Your task to perform on an android device: What's the weather? Image 0: 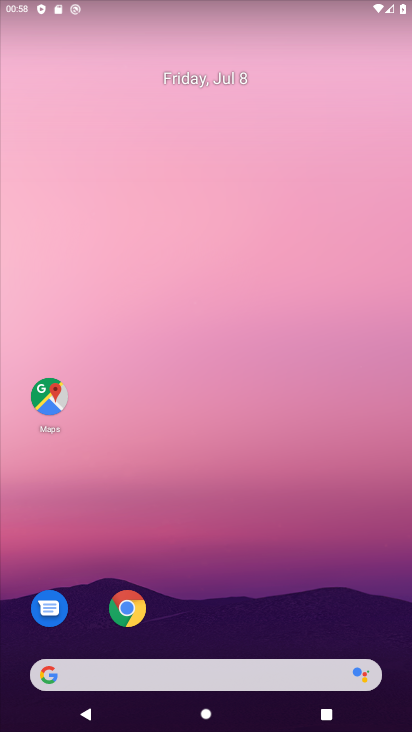
Step 0: press home button
Your task to perform on an android device: What's the weather? Image 1: 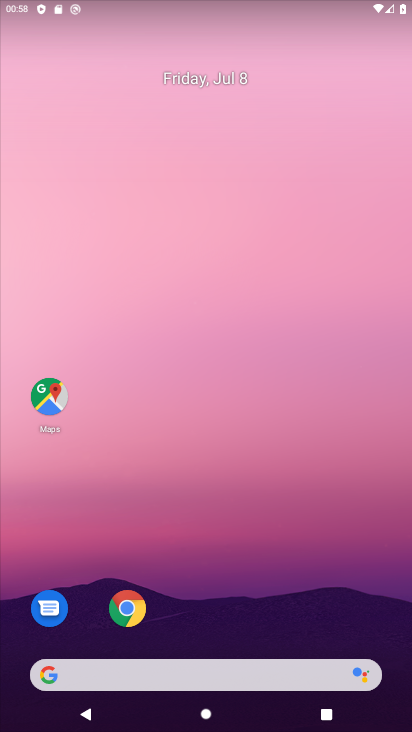
Step 1: click (131, 620)
Your task to perform on an android device: What's the weather? Image 2: 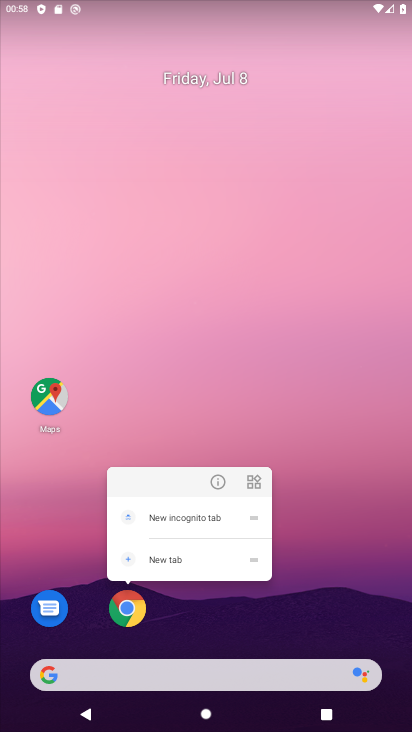
Step 2: click (131, 620)
Your task to perform on an android device: What's the weather? Image 3: 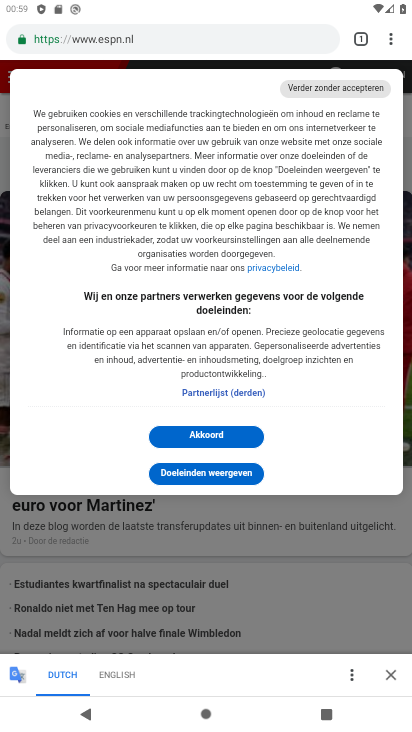
Step 3: click (192, 55)
Your task to perform on an android device: What's the weather? Image 4: 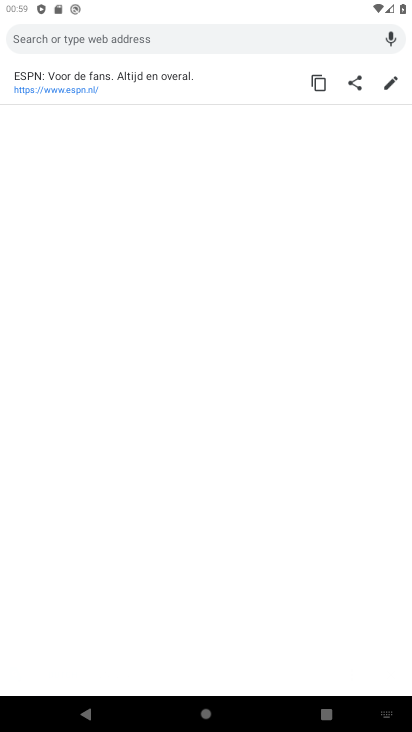
Step 4: type "What's the weather?"
Your task to perform on an android device: What's the weather? Image 5: 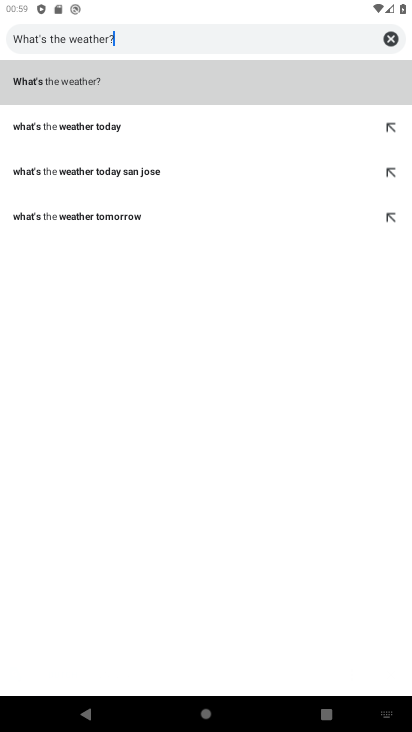
Step 5: click (199, 84)
Your task to perform on an android device: What's the weather? Image 6: 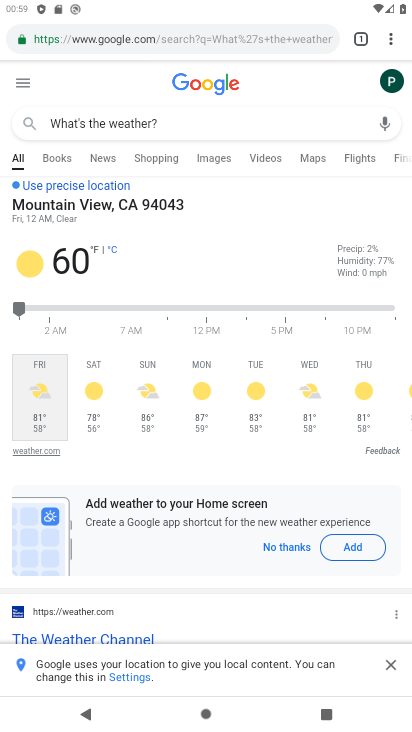
Step 6: task complete